Your task to perform on an android device: toggle data saver in the chrome app Image 0: 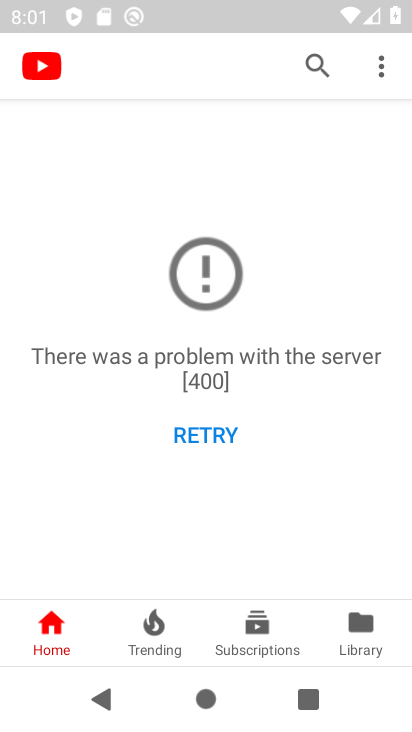
Step 0: press home button
Your task to perform on an android device: toggle data saver in the chrome app Image 1: 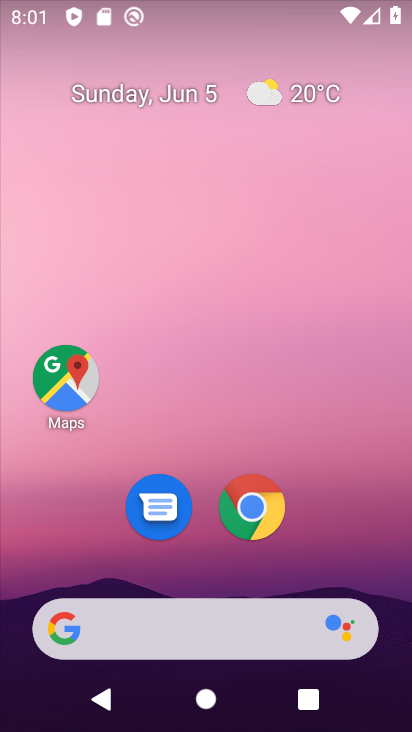
Step 1: click (274, 499)
Your task to perform on an android device: toggle data saver in the chrome app Image 2: 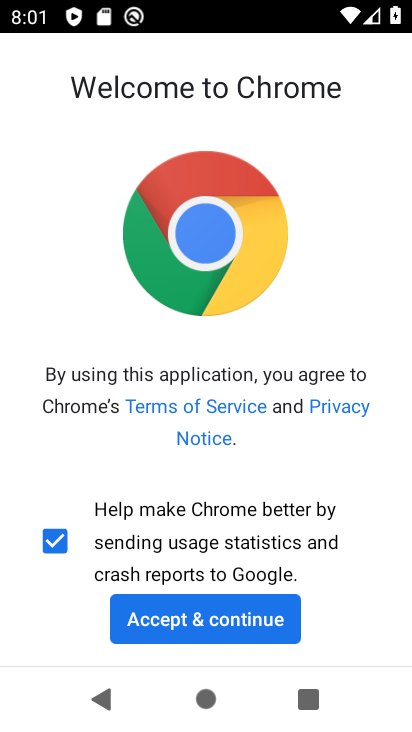
Step 2: click (226, 600)
Your task to perform on an android device: toggle data saver in the chrome app Image 3: 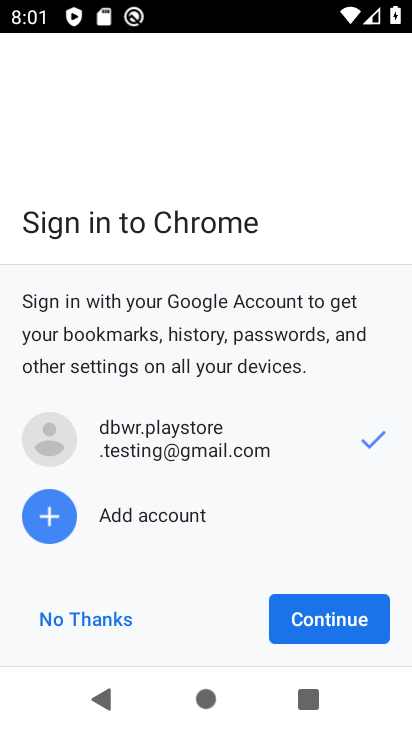
Step 3: click (306, 606)
Your task to perform on an android device: toggle data saver in the chrome app Image 4: 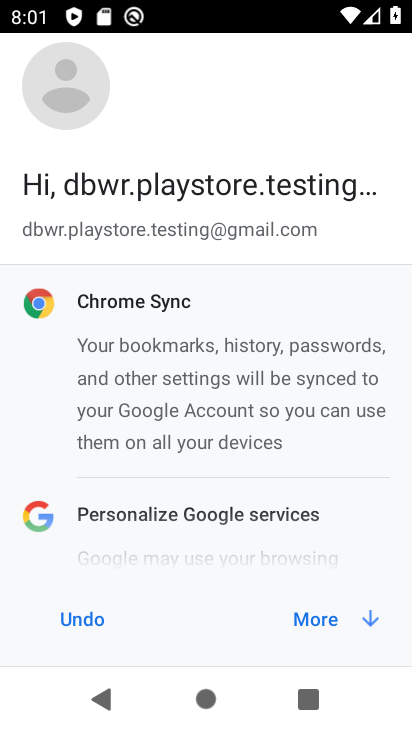
Step 4: click (314, 627)
Your task to perform on an android device: toggle data saver in the chrome app Image 5: 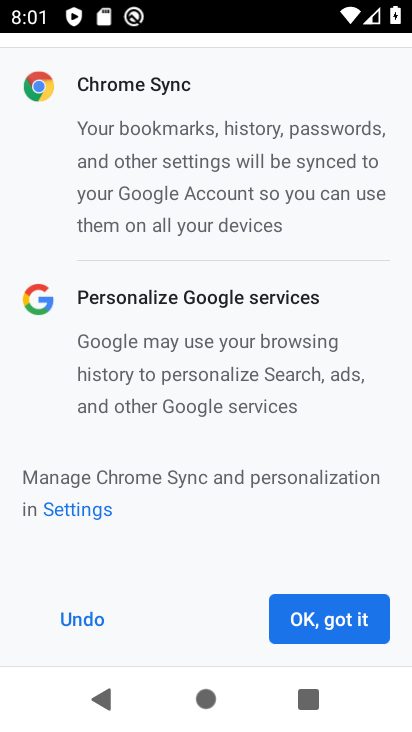
Step 5: click (314, 627)
Your task to perform on an android device: toggle data saver in the chrome app Image 6: 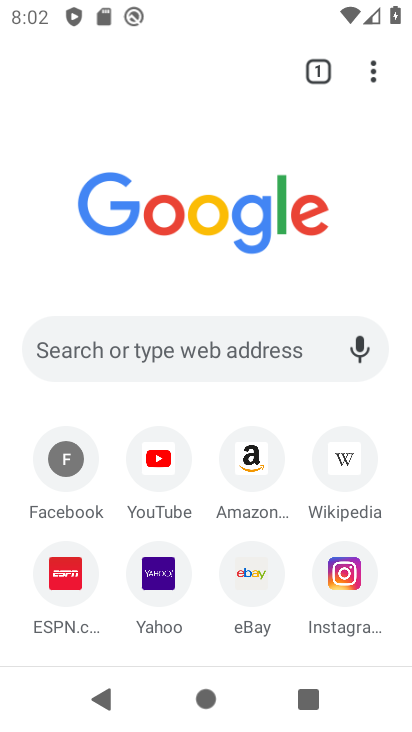
Step 6: click (381, 71)
Your task to perform on an android device: toggle data saver in the chrome app Image 7: 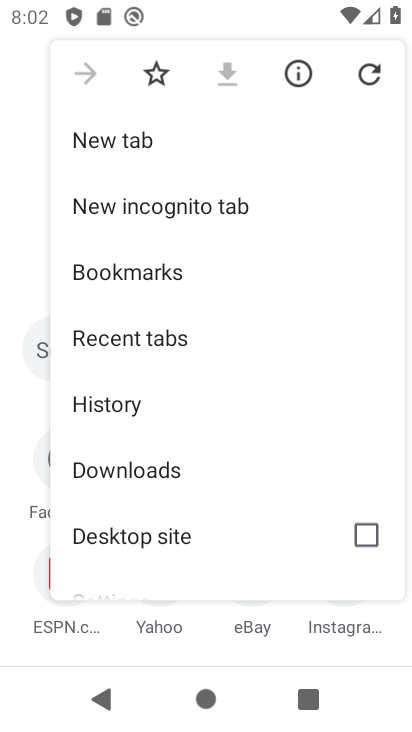
Step 7: drag from (171, 536) to (228, 137)
Your task to perform on an android device: toggle data saver in the chrome app Image 8: 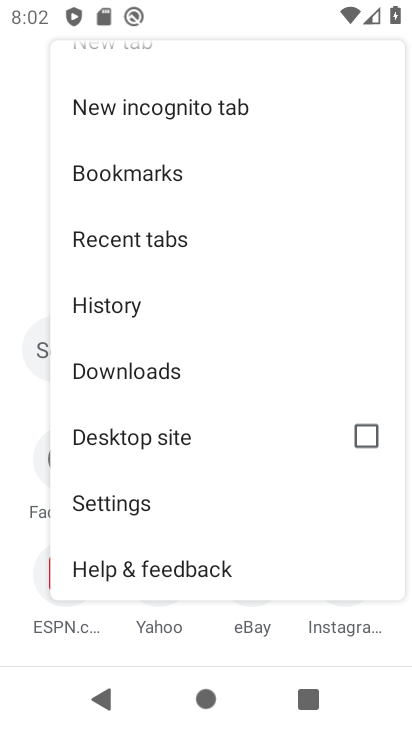
Step 8: click (141, 509)
Your task to perform on an android device: toggle data saver in the chrome app Image 9: 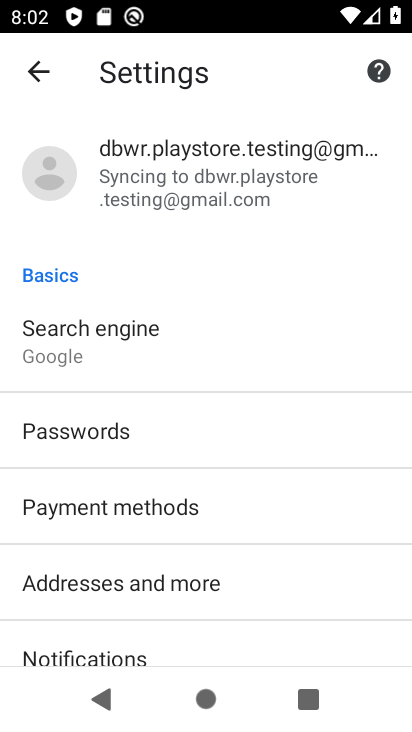
Step 9: drag from (164, 562) to (196, 268)
Your task to perform on an android device: toggle data saver in the chrome app Image 10: 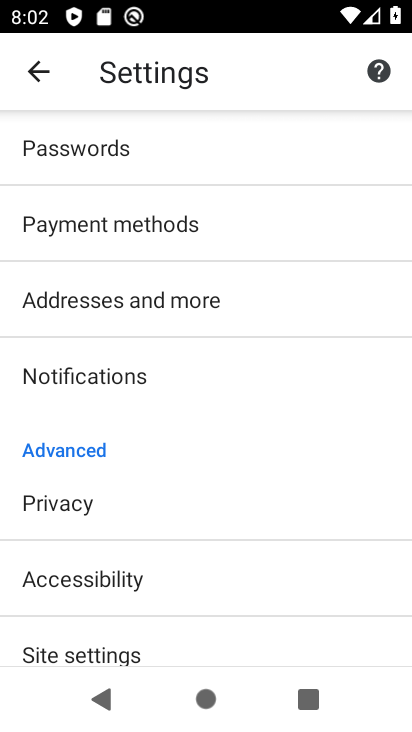
Step 10: drag from (127, 609) to (157, 342)
Your task to perform on an android device: toggle data saver in the chrome app Image 11: 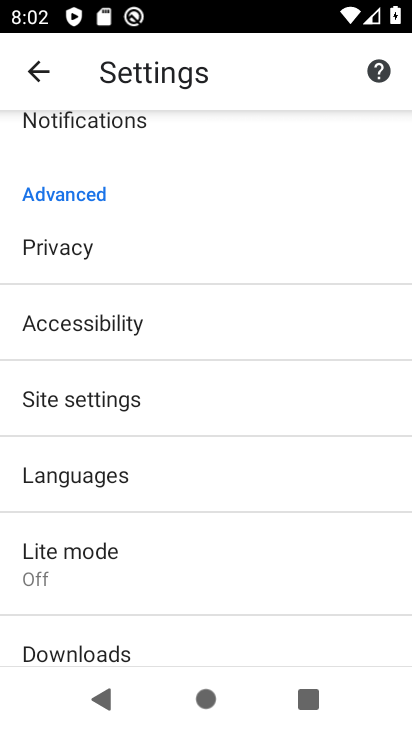
Step 11: click (83, 563)
Your task to perform on an android device: toggle data saver in the chrome app Image 12: 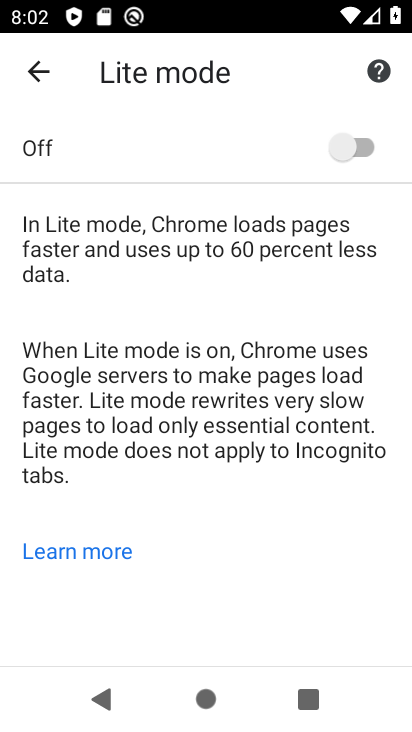
Step 12: click (381, 153)
Your task to perform on an android device: toggle data saver in the chrome app Image 13: 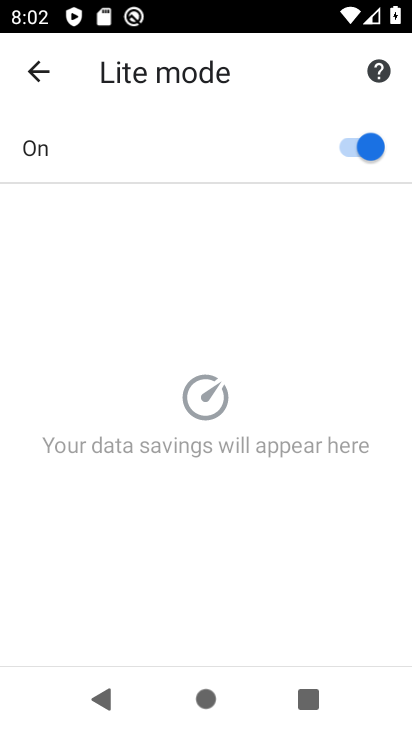
Step 13: task complete